Your task to perform on an android device: Go to network settings Image 0: 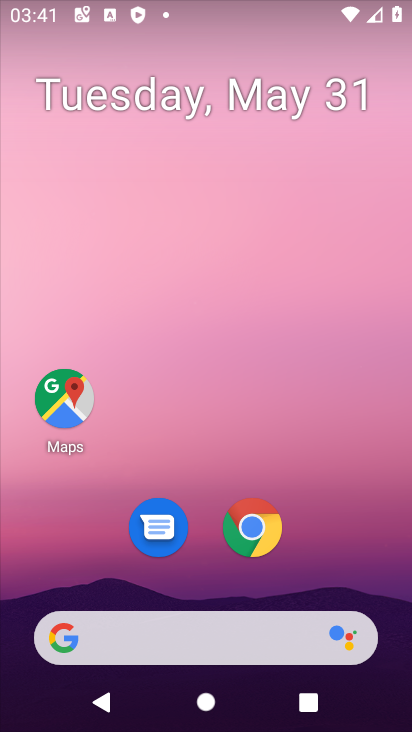
Step 0: drag from (390, 616) to (315, 56)
Your task to perform on an android device: Go to network settings Image 1: 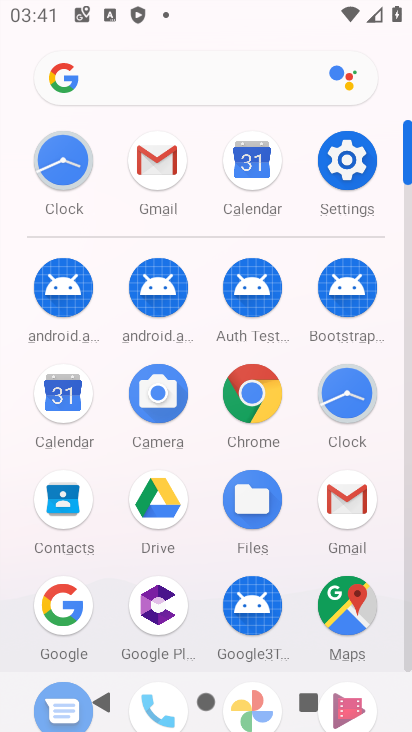
Step 1: click (409, 658)
Your task to perform on an android device: Go to network settings Image 2: 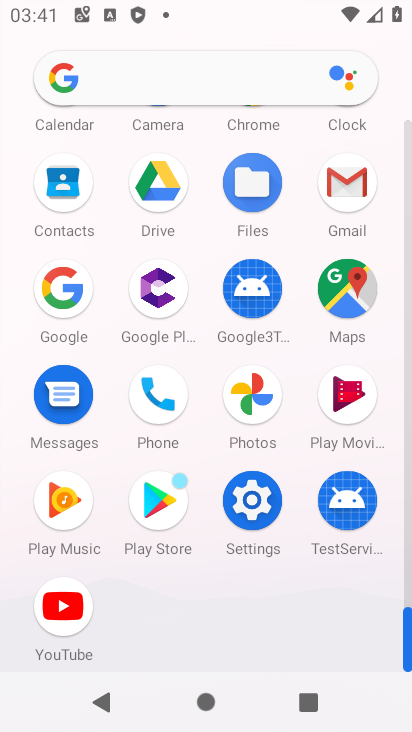
Step 2: click (252, 500)
Your task to perform on an android device: Go to network settings Image 3: 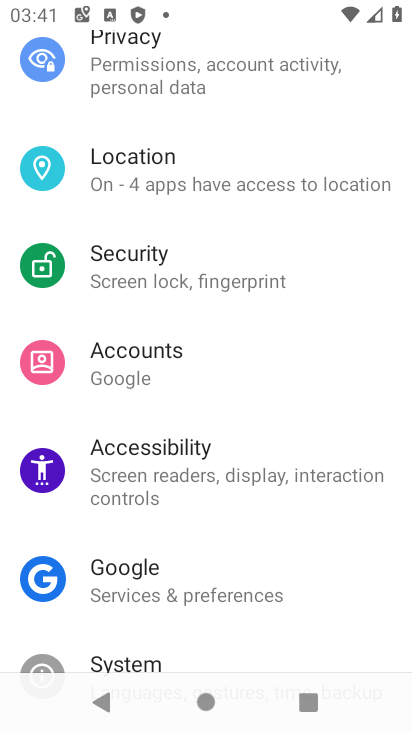
Step 3: drag from (357, 151) to (345, 488)
Your task to perform on an android device: Go to network settings Image 4: 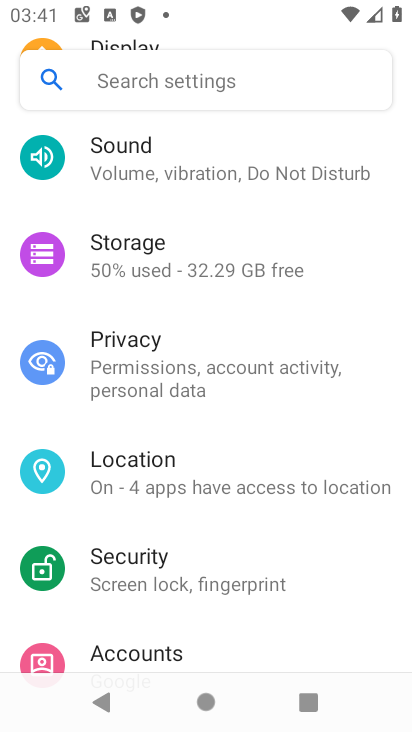
Step 4: drag from (371, 286) to (365, 605)
Your task to perform on an android device: Go to network settings Image 5: 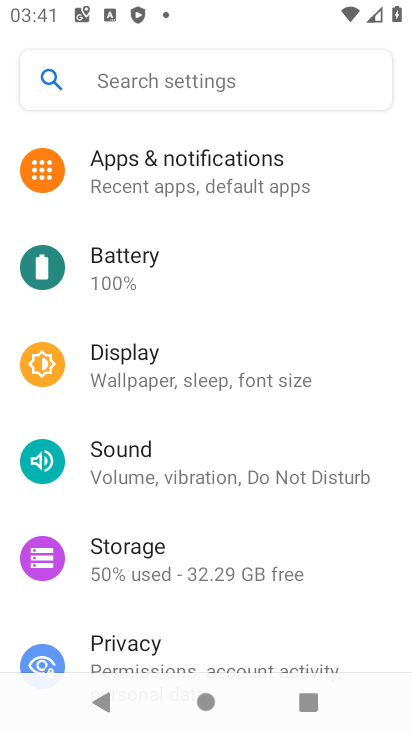
Step 5: drag from (356, 296) to (355, 591)
Your task to perform on an android device: Go to network settings Image 6: 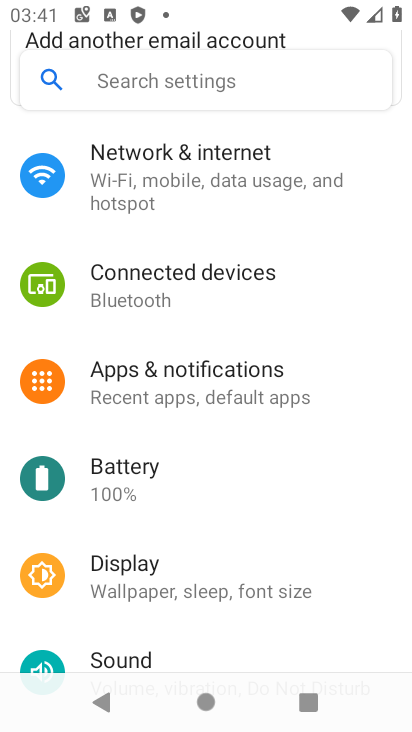
Step 6: click (149, 174)
Your task to perform on an android device: Go to network settings Image 7: 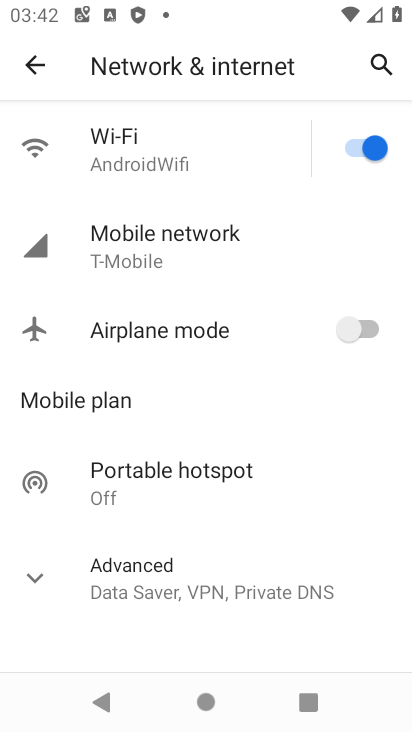
Step 7: click (144, 246)
Your task to perform on an android device: Go to network settings Image 8: 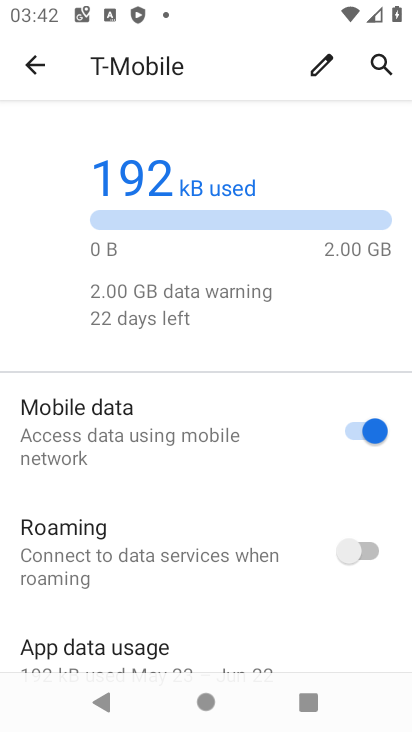
Step 8: drag from (257, 616) to (278, 273)
Your task to perform on an android device: Go to network settings Image 9: 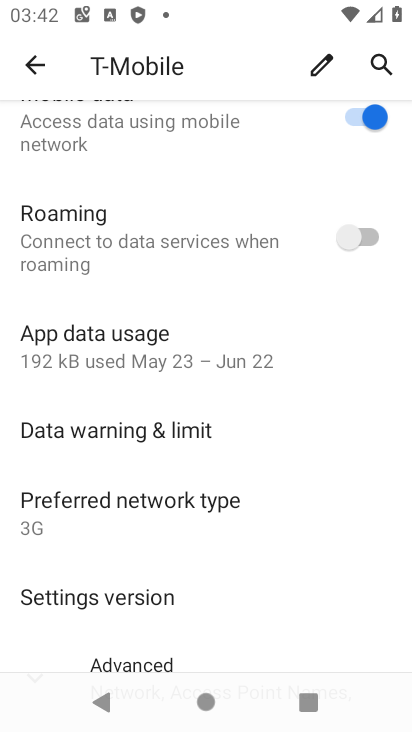
Step 9: drag from (252, 613) to (245, 373)
Your task to perform on an android device: Go to network settings Image 10: 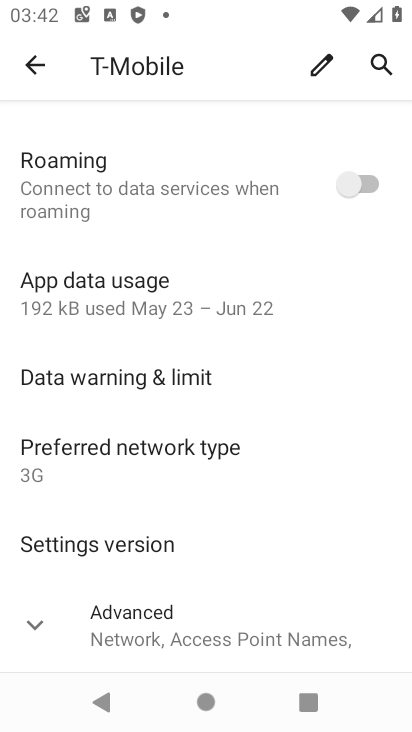
Step 10: click (35, 635)
Your task to perform on an android device: Go to network settings Image 11: 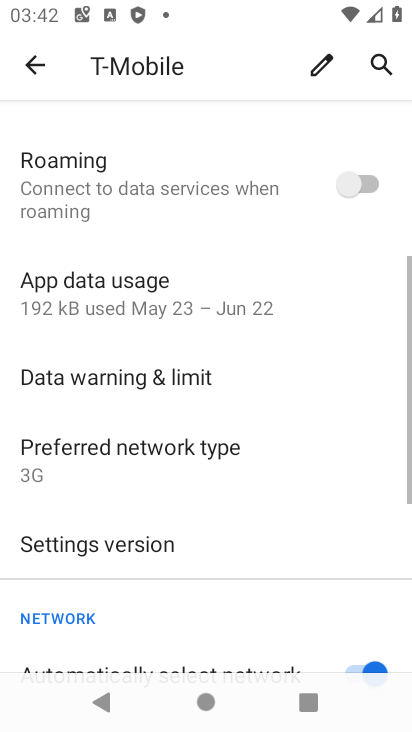
Step 11: task complete